Your task to perform on an android device: Open Google Chrome and open the bookmarks view Image 0: 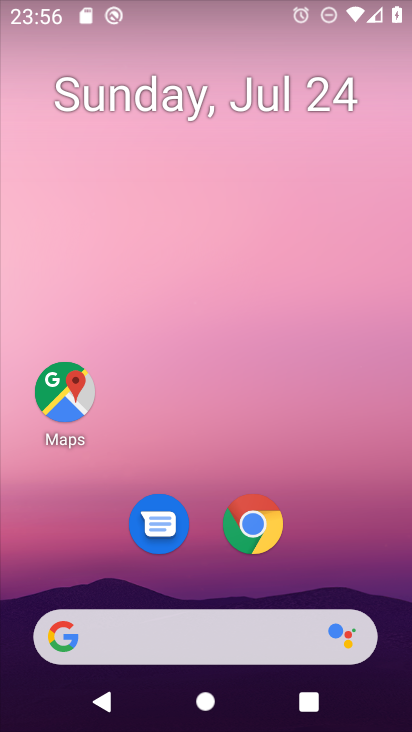
Step 0: press home button
Your task to perform on an android device: Open Google Chrome and open the bookmarks view Image 1: 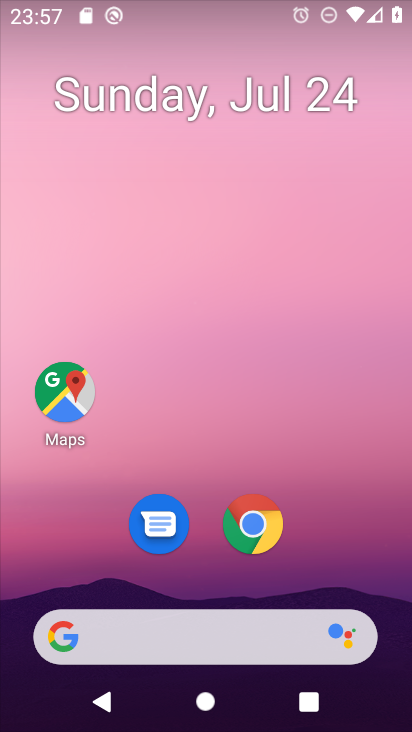
Step 1: click (251, 530)
Your task to perform on an android device: Open Google Chrome and open the bookmarks view Image 2: 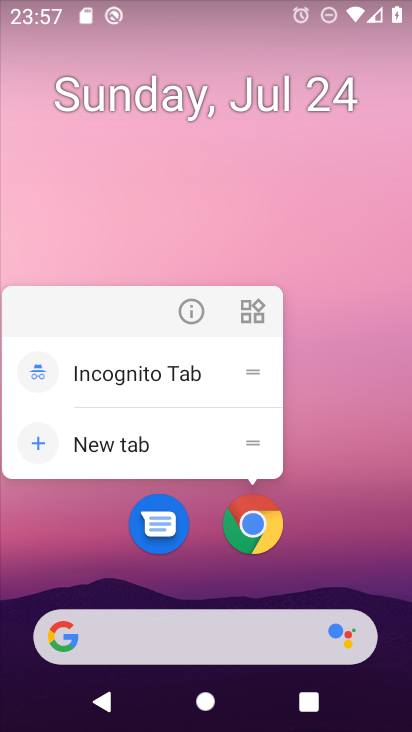
Step 2: click (257, 526)
Your task to perform on an android device: Open Google Chrome and open the bookmarks view Image 3: 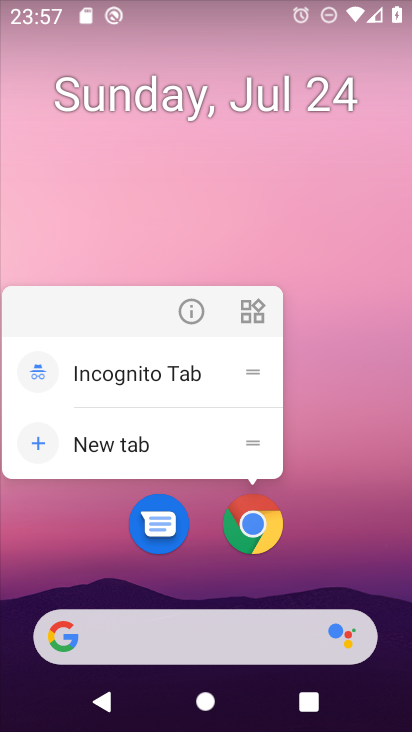
Step 3: click (257, 526)
Your task to perform on an android device: Open Google Chrome and open the bookmarks view Image 4: 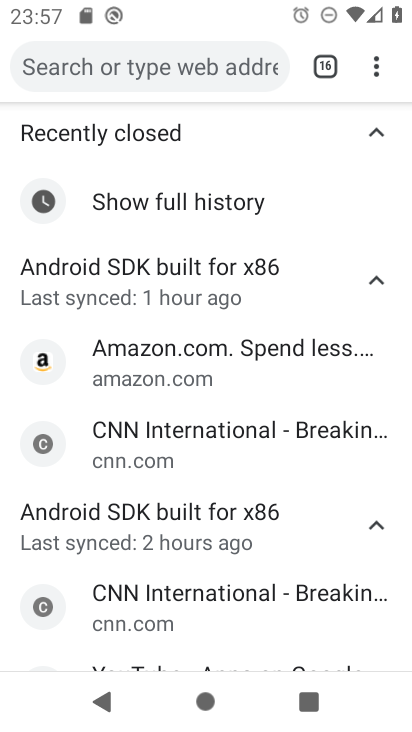
Step 4: task complete